Your task to perform on an android device: open device folders in google photos Image 0: 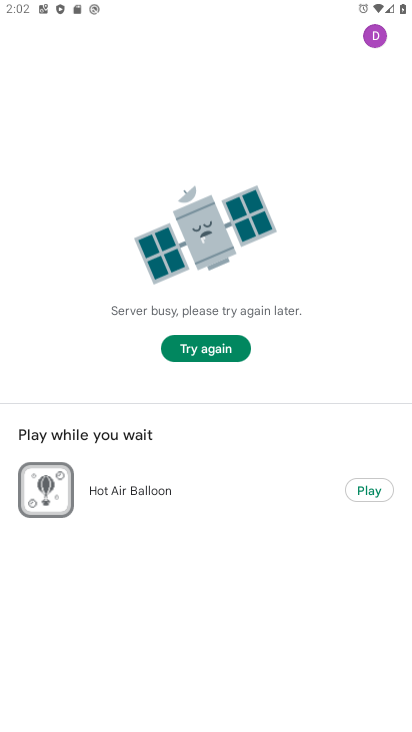
Step 0: press home button
Your task to perform on an android device: open device folders in google photos Image 1: 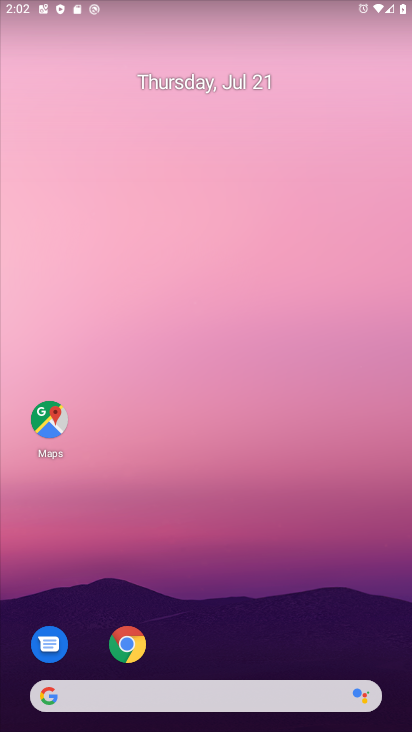
Step 1: drag from (160, 587) to (162, 469)
Your task to perform on an android device: open device folders in google photos Image 2: 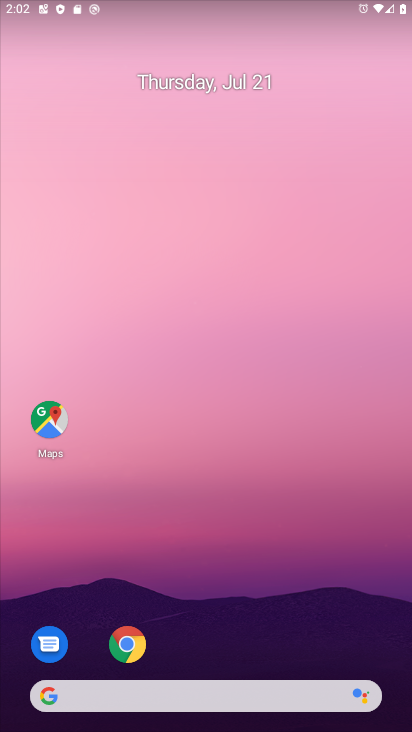
Step 2: drag from (191, 587) to (191, 248)
Your task to perform on an android device: open device folders in google photos Image 3: 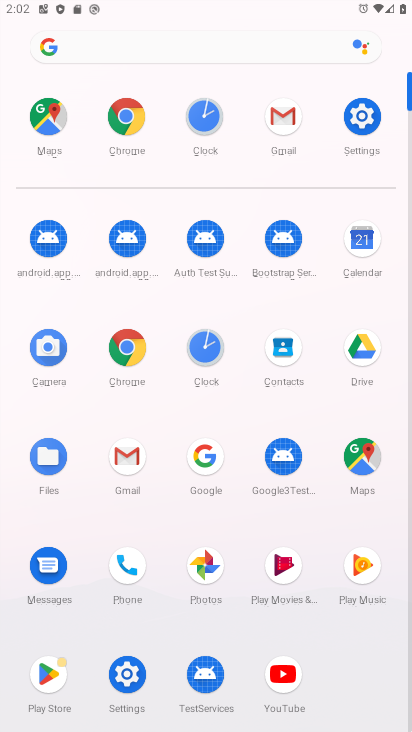
Step 3: click (211, 571)
Your task to perform on an android device: open device folders in google photos Image 4: 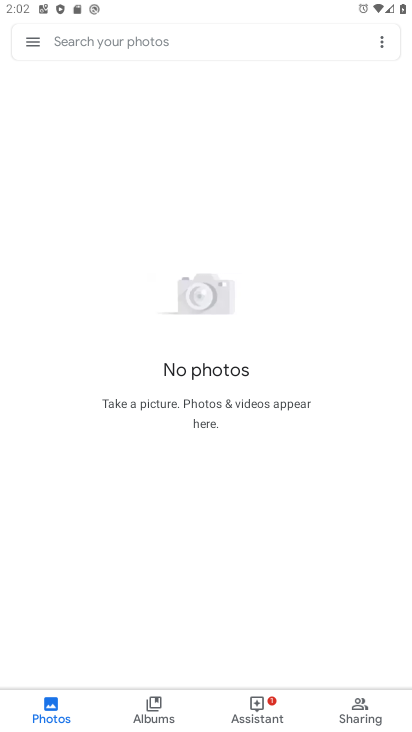
Step 4: click (42, 41)
Your task to perform on an android device: open device folders in google photos Image 5: 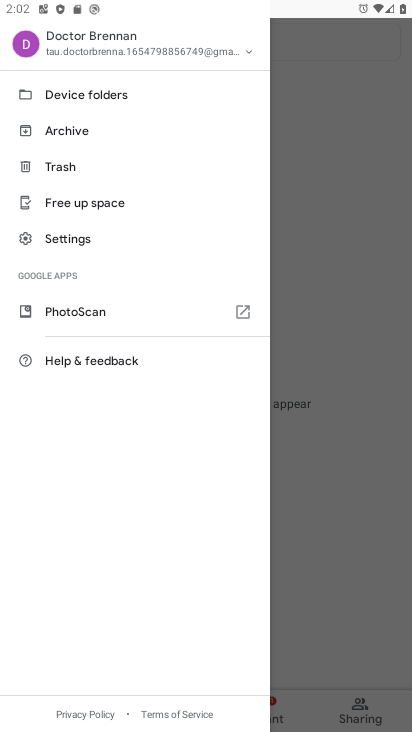
Step 5: click (68, 97)
Your task to perform on an android device: open device folders in google photos Image 6: 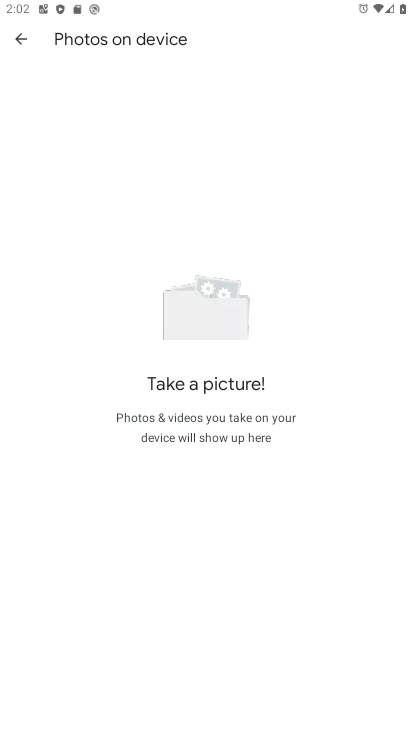
Step 6: task complete